Your task to perform on an android device: Go to display settings Image 0: 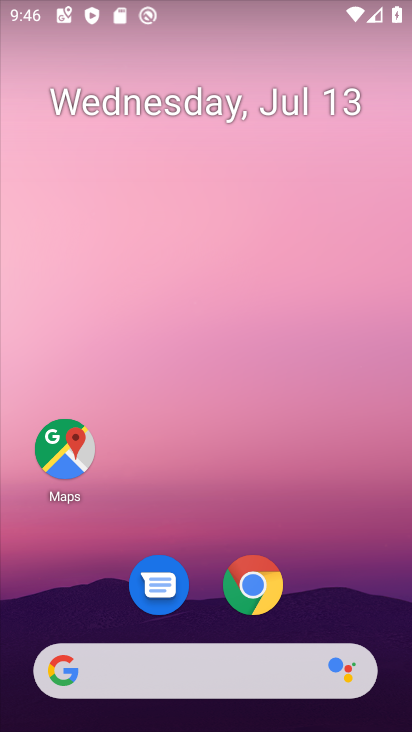
Step 0: drag from (321, 573) to (334, 4)
Your task to perform on an android device: Go to display settings Image 1: 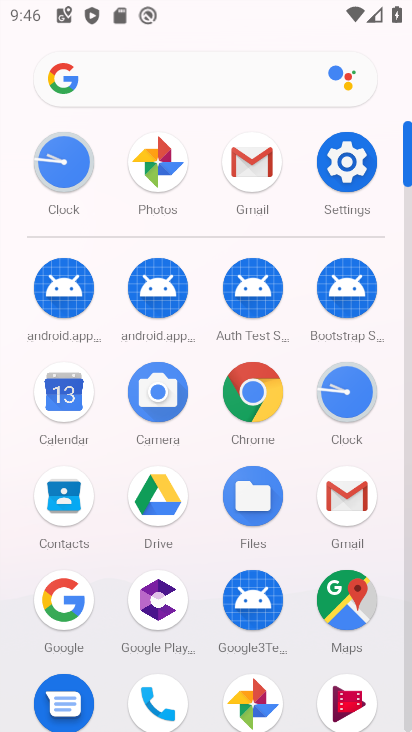
Step 1: click (351, 168)
Your task to perform on an android device: Go to display settings Image 2: 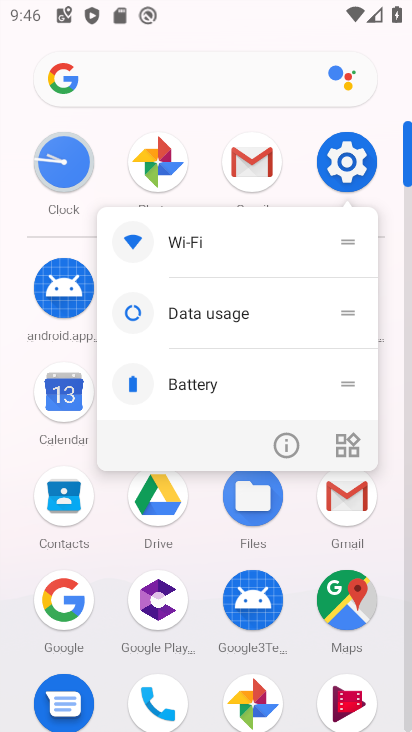
Step 2: click (351, 163)
Your task to perform on an android device: Go to display settings Image 3: 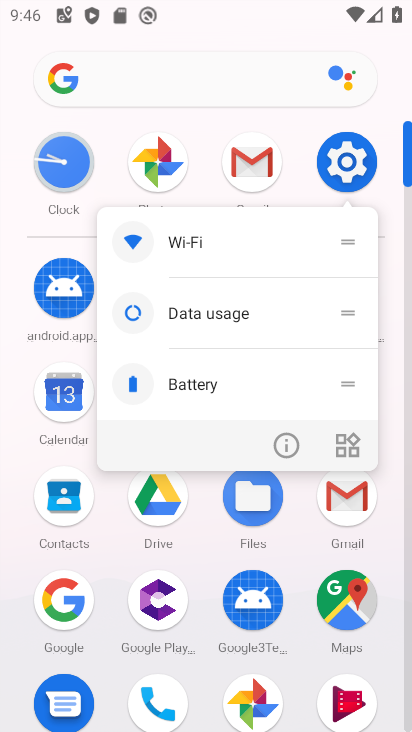
Step 3: click (351, 160)
Your task to perform on an android device: Go to display settings Image 4: 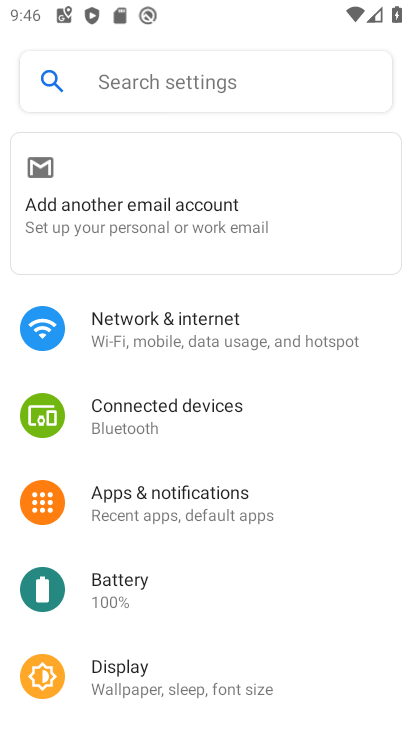
Step 4: click (178, 682)
Your task to perform on an android device: Go to display settings Image 5: 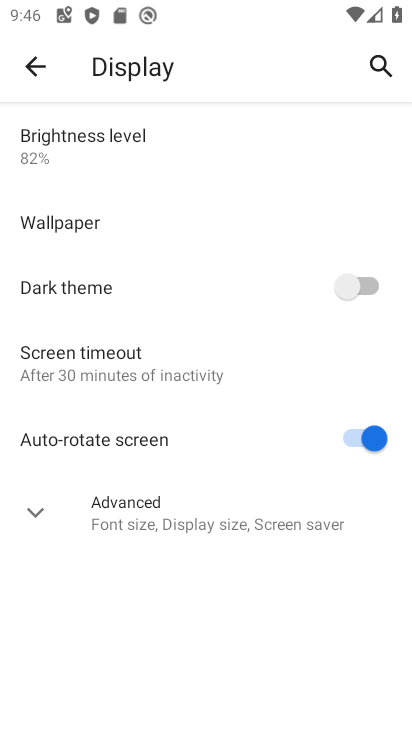
Step 5: click (36, 511)
Your task to perform on an android device: Go to display settings Image 6: 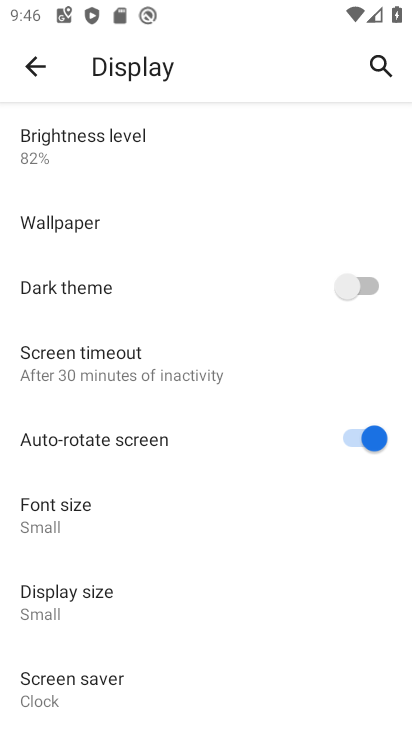
Step 6: task complete